Your task to perform on an android device: turn on notifications settings in the gmail app Image 0: 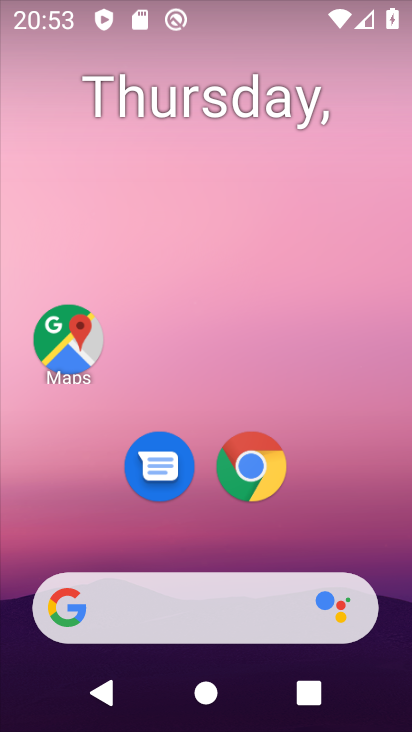
Step 0: drag from (210, 551) to (213, 3)
Your task to perform on an android device: turn on notifications settings in the gmail app Image 1: 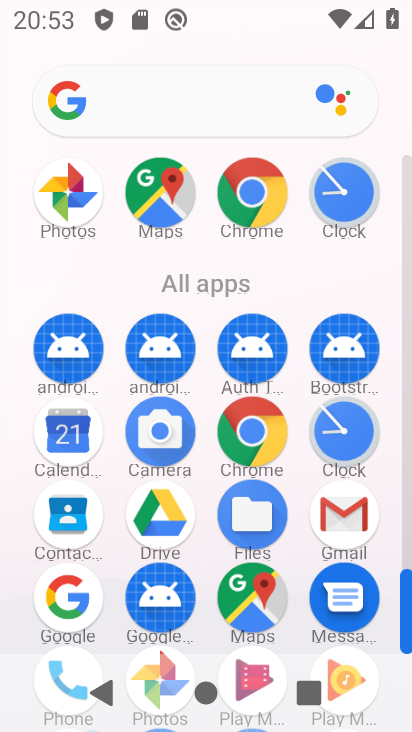
Step 1: click (342, 523)
Your task to perform on an android device: turn on notifications settings in the gmail app Image 2: 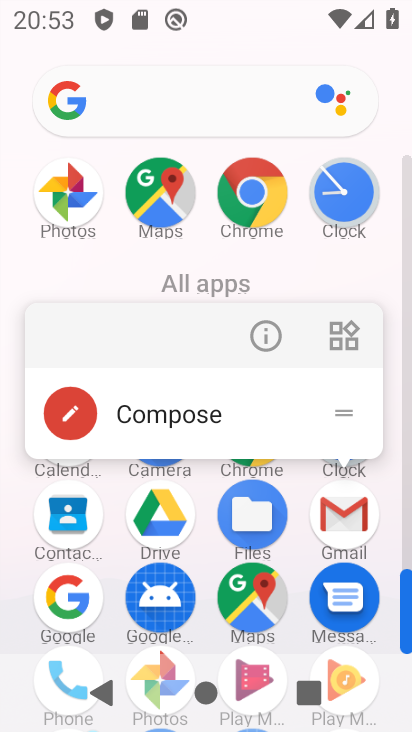
Step 2: click (355, 509)
Your task to perform on an android device: turn on notifications settings in the gmail app Image 3: 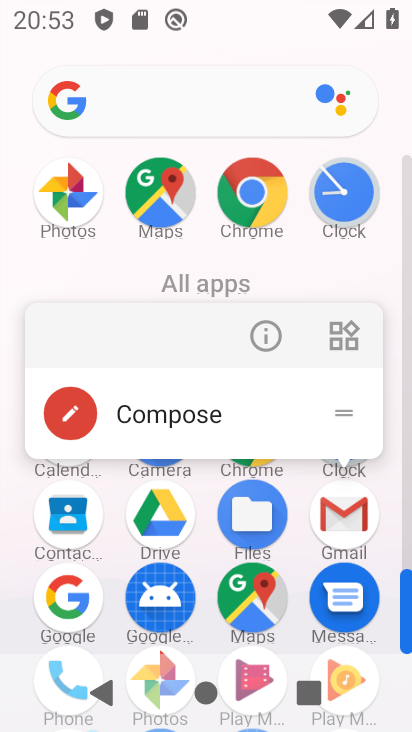
Step 3: click (356, 505)
Your task to perform on an android device: turn on notifications settings in the gmail app Image 4: 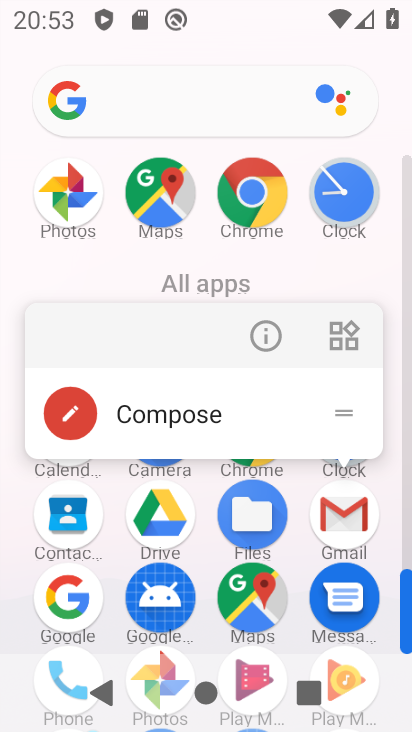
Step 4: click (335, 525)
Your task to perform on an android device: turn on notifications settings in the gmail app Image 5: 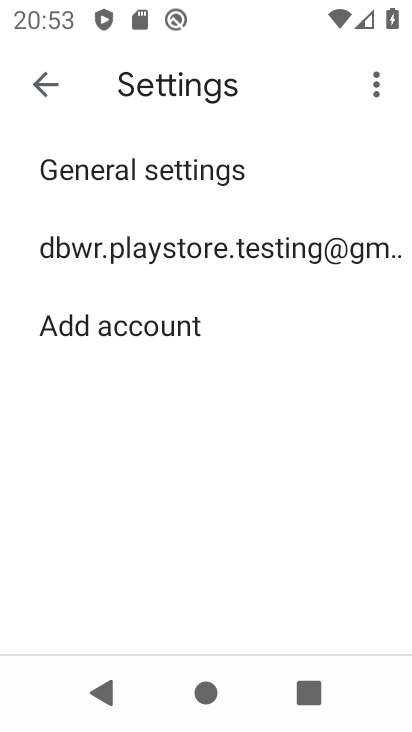
Step 5: click (140, 180)
Your task to perform on an android device: turn on notifications settings in the gmail app Image 6: 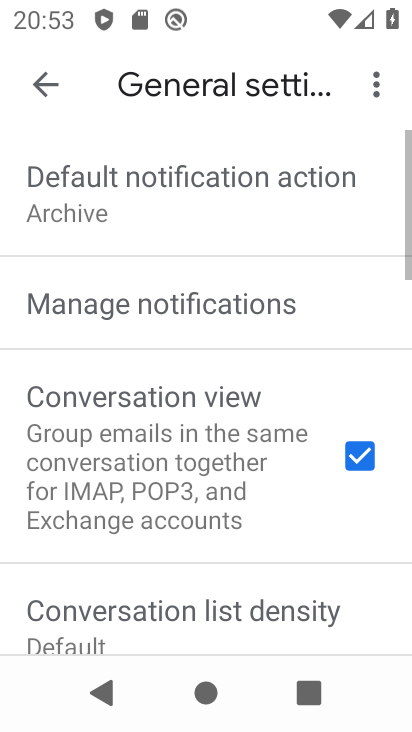
Step 6: click (166, 281)
Your task to perform on an android device: turn on notifications settings in the gmail app Image 7: 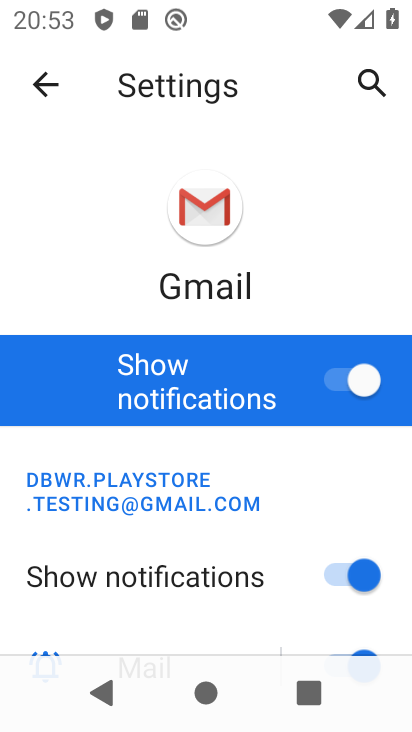
Step 7: task complete